Your task to perform on an android device: Open the calendar app, open the side menu, and click the "Day" option Image 0: 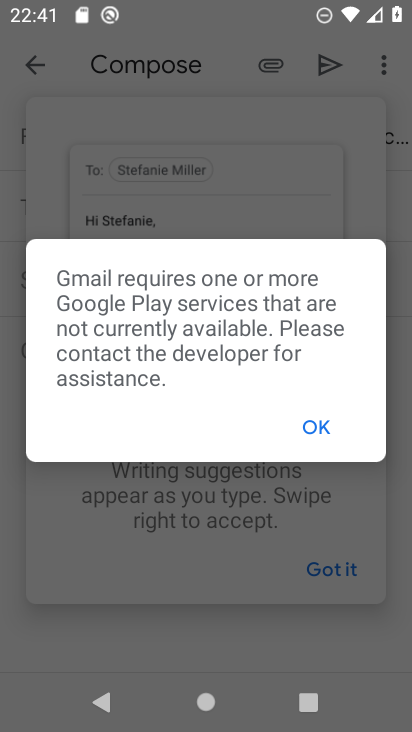
Step 0: press home button
Your task to perform on an android device: Open the calendar app, open the side menu, and click the "Day" option Image 1: 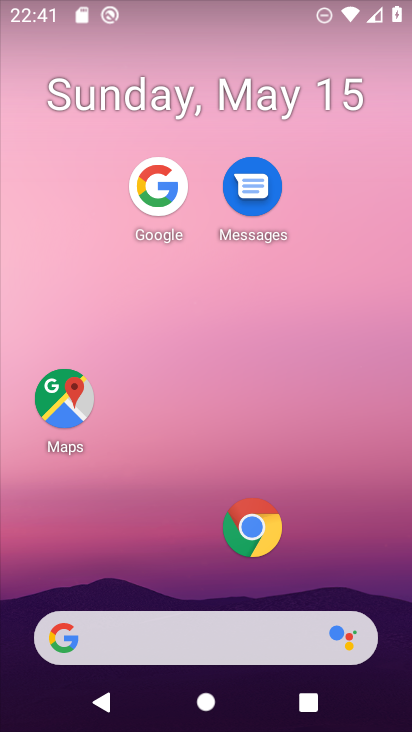
Step 1: drag from (120, 652) to (256, 191)
Your task to perform on an android device: Open the calendar app, open the side menu, and click the "Day" option Image 2: 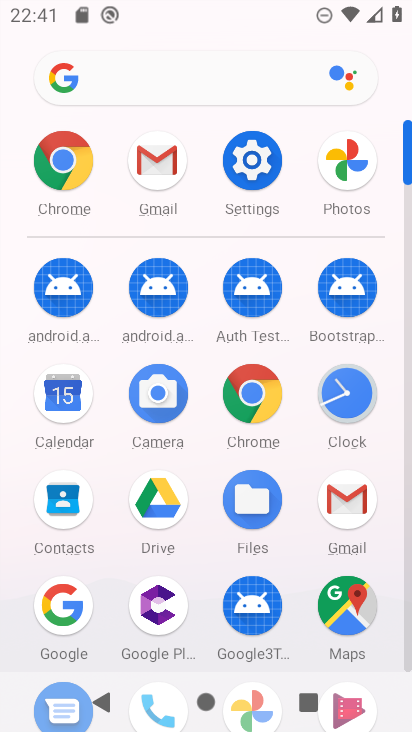
Step 2: click (61, 407)
Your task to perform on an android device: Open the calendar app, open the side menu, and click the "Day" option Image 3: 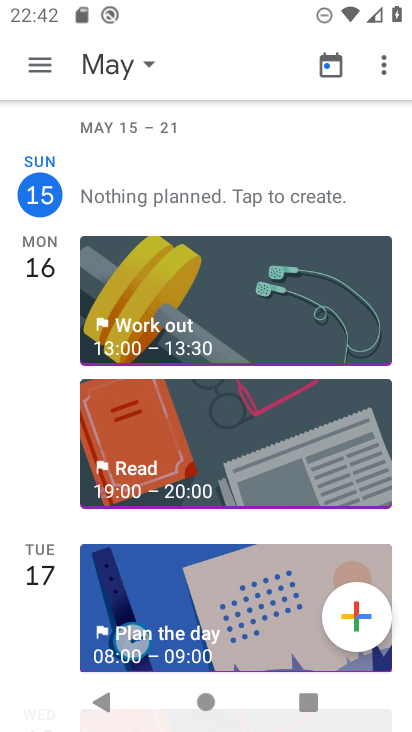
Step 3: click (103, 74)
Your task to perform on an android device: Open the calendar app, open the side menu, and click the "Day" option Image 4: 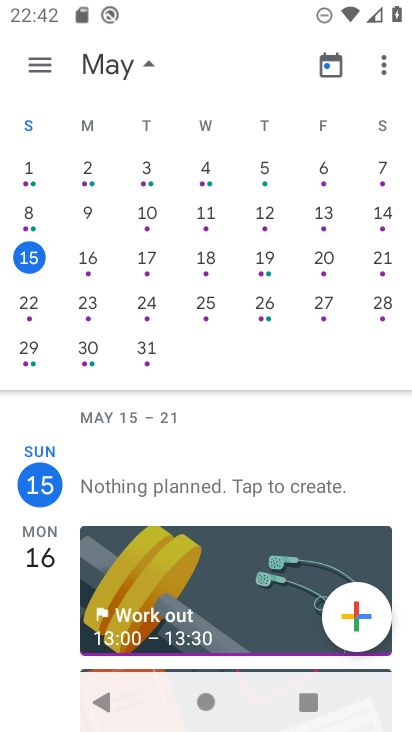
Step 4: click (40, 64)
Your task to perform on an android device: Open the calendar app, open the side menu, and click the "Day" option Image 5: 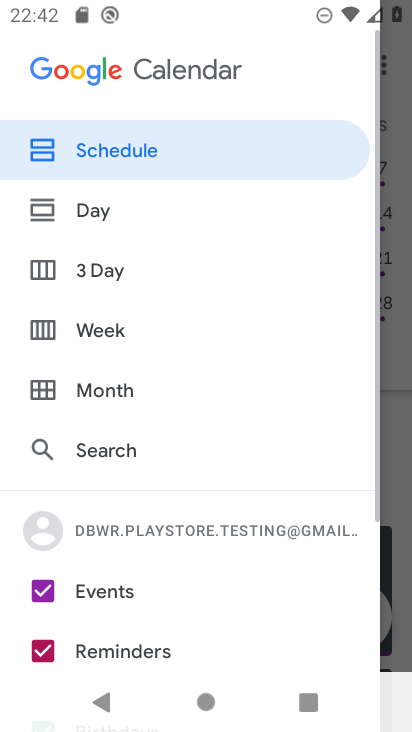
Step 5: click (92, 211)
Your task to perform on an android device: Open the calendar app, open the side menu, and click the "Day" option Image 6: 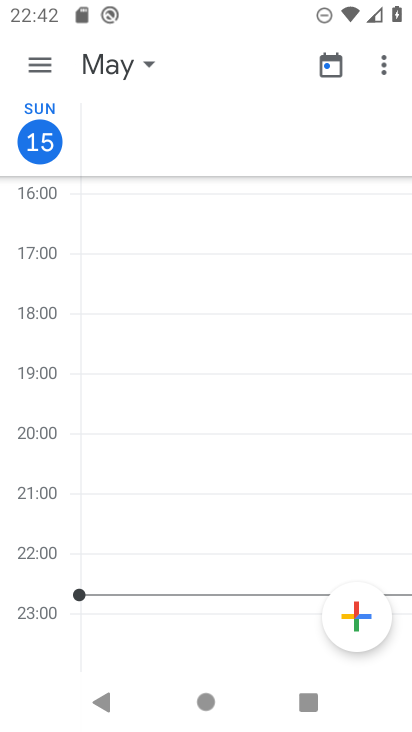
Step 6: task complete